Your task to perform on an android device: Open the phone app and click the voicemail tab. Image 0: 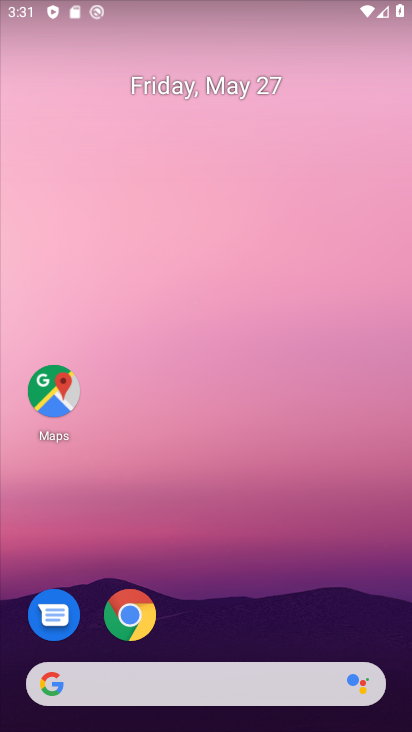
Step 0: drag from (115, 707) to (73, 10)
Your task to perform on an android device: Open the phone app and click the voicemail tab. Image 1: 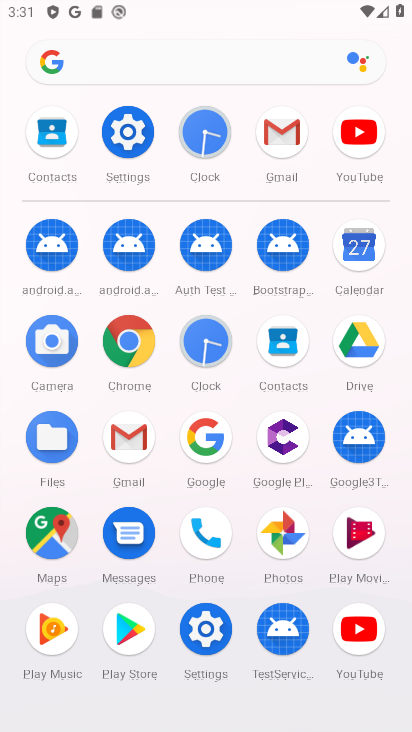
Step 1: click (204, 526)
Your task to perform on an android device: Open the phone app and click the voicemail tab. Image 2: 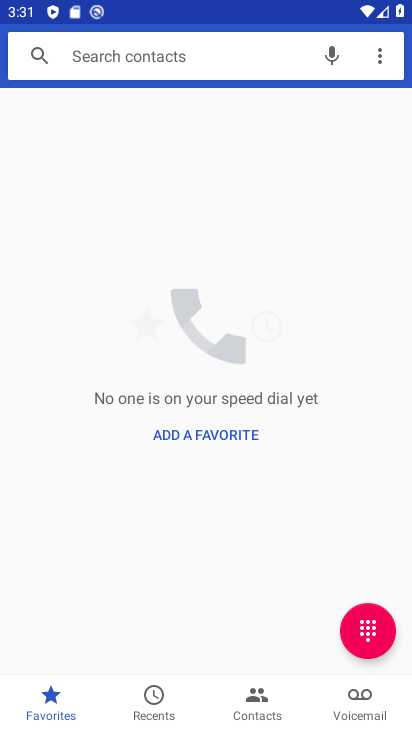
Step 2: click (358, 708)
Your task to perform on an android device: Open the phone app and click the voicemail tab. Image 3: 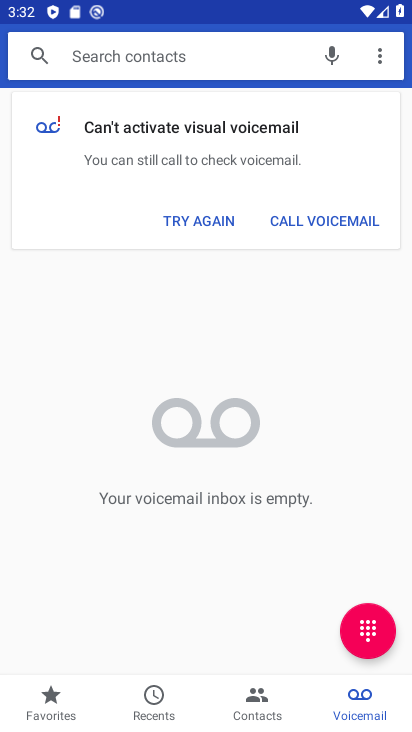
Step 3: task complete